Your task to perform on an android device: uninstall "YouTube Kids" Image 0: 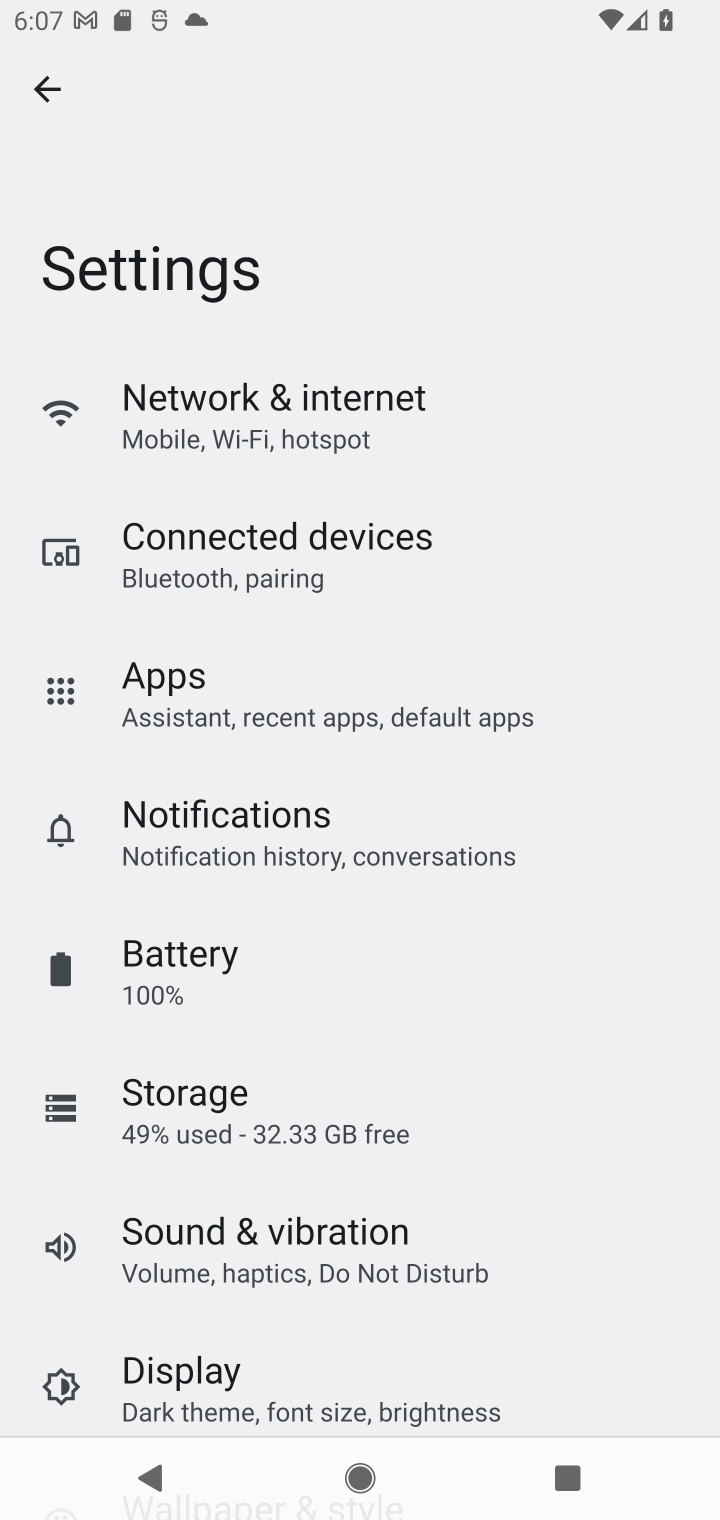
Step 0: press home button
Your task to perform on an android device: uninstall "YouTube Kids" Image 1: 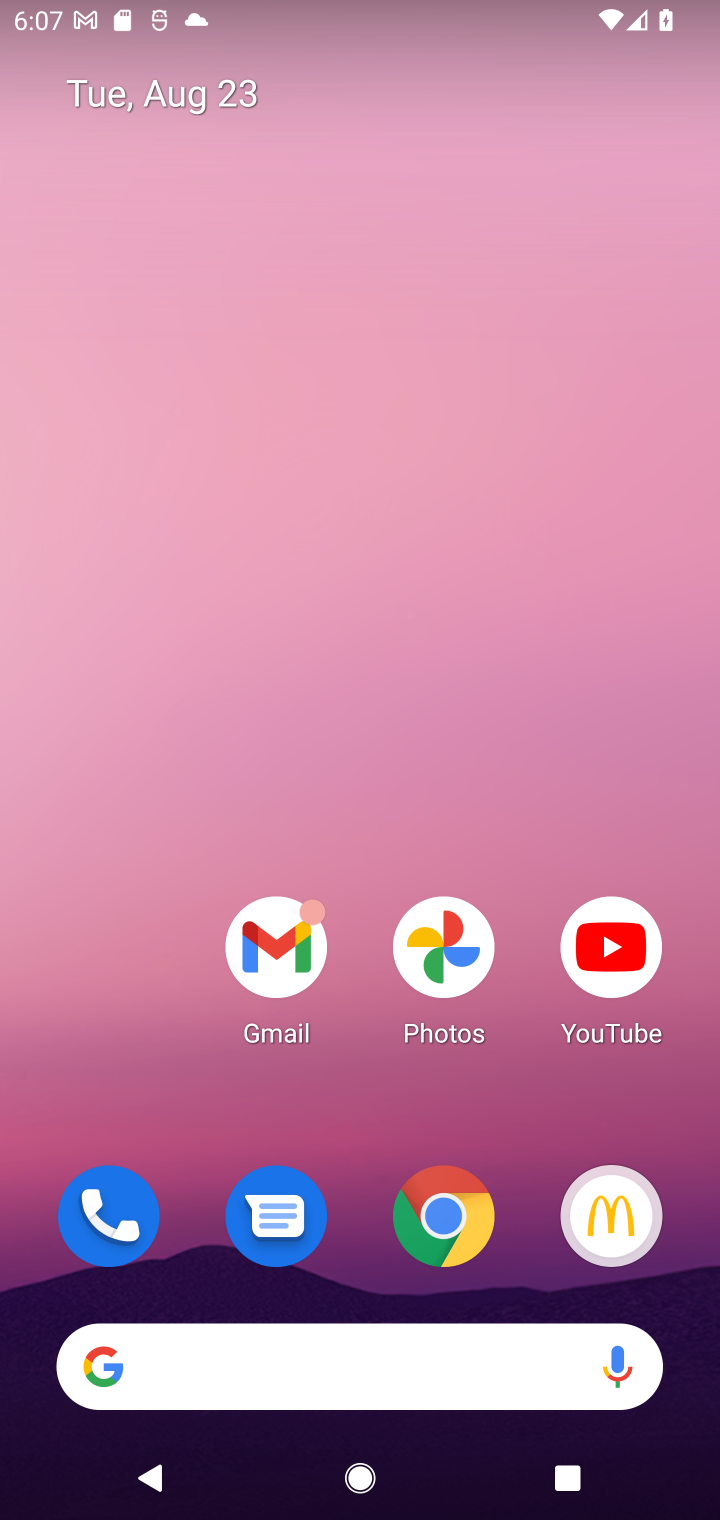
Step 1: drag from (253, 1306) to (326, 197)
Your task to perform on an android device: uninstall "YouTube Kids" Image 2: 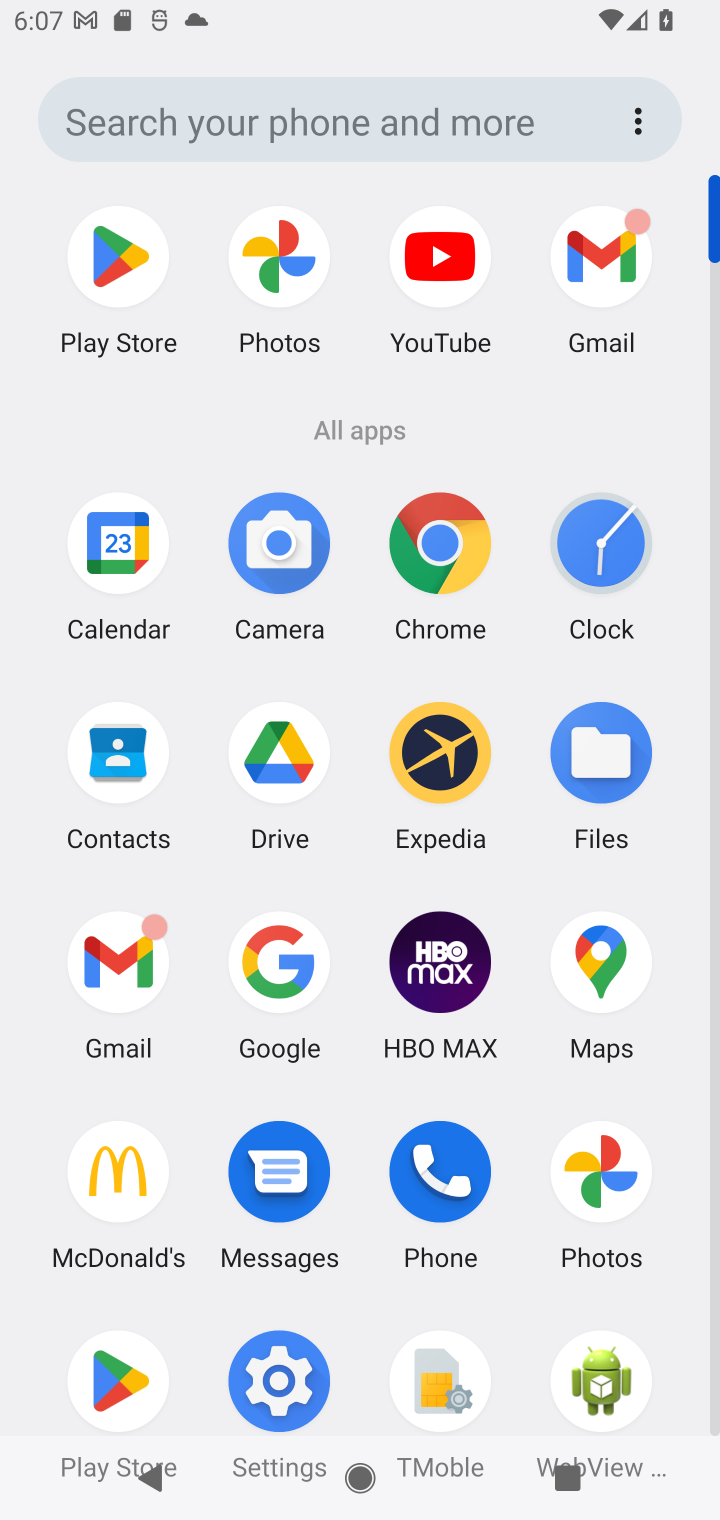
Step 2: click (99, 1386)
Your task to perform on an android device: uninstall "YouTube Kids" Image 3: 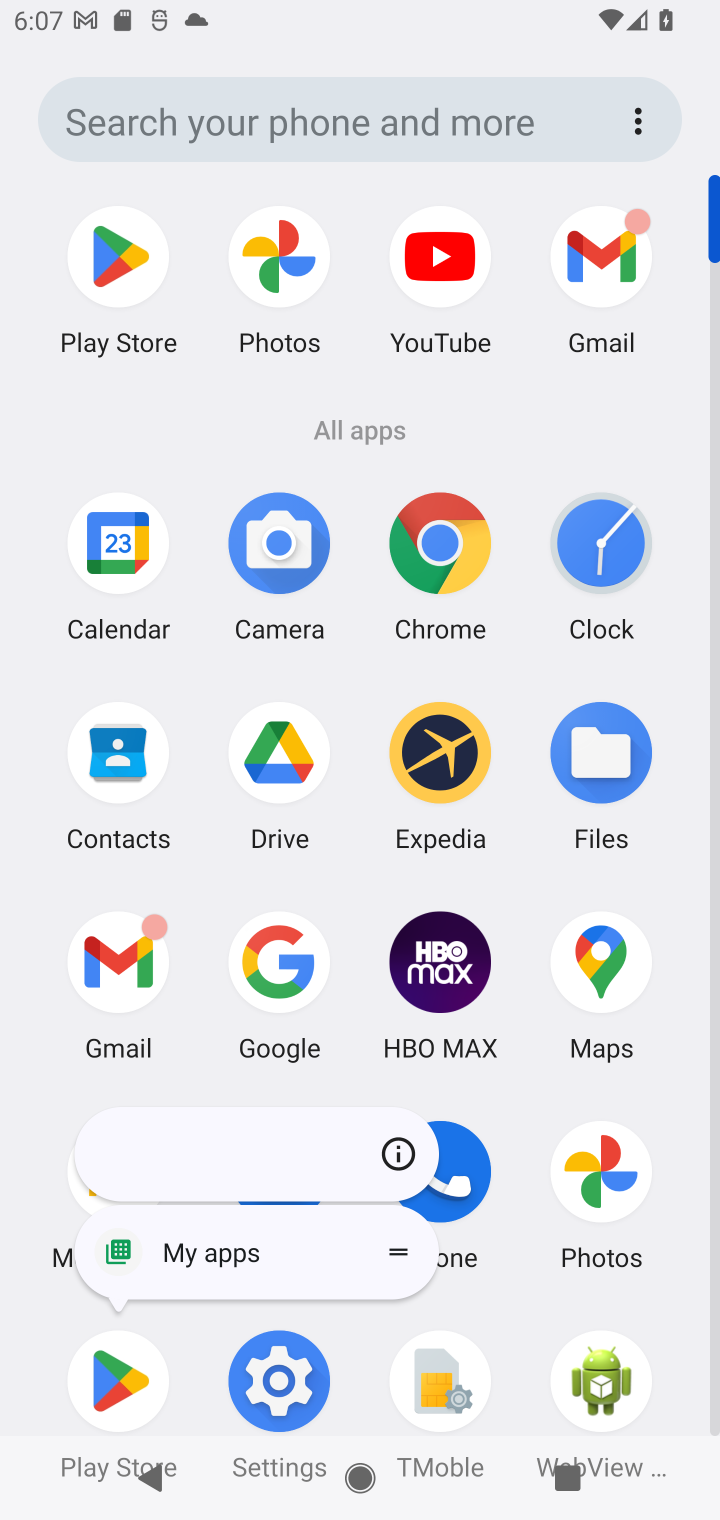
Step 3: click (121, 1400)
Your task to perform on an android device: uninstall "YouTube Kids" Image 4: 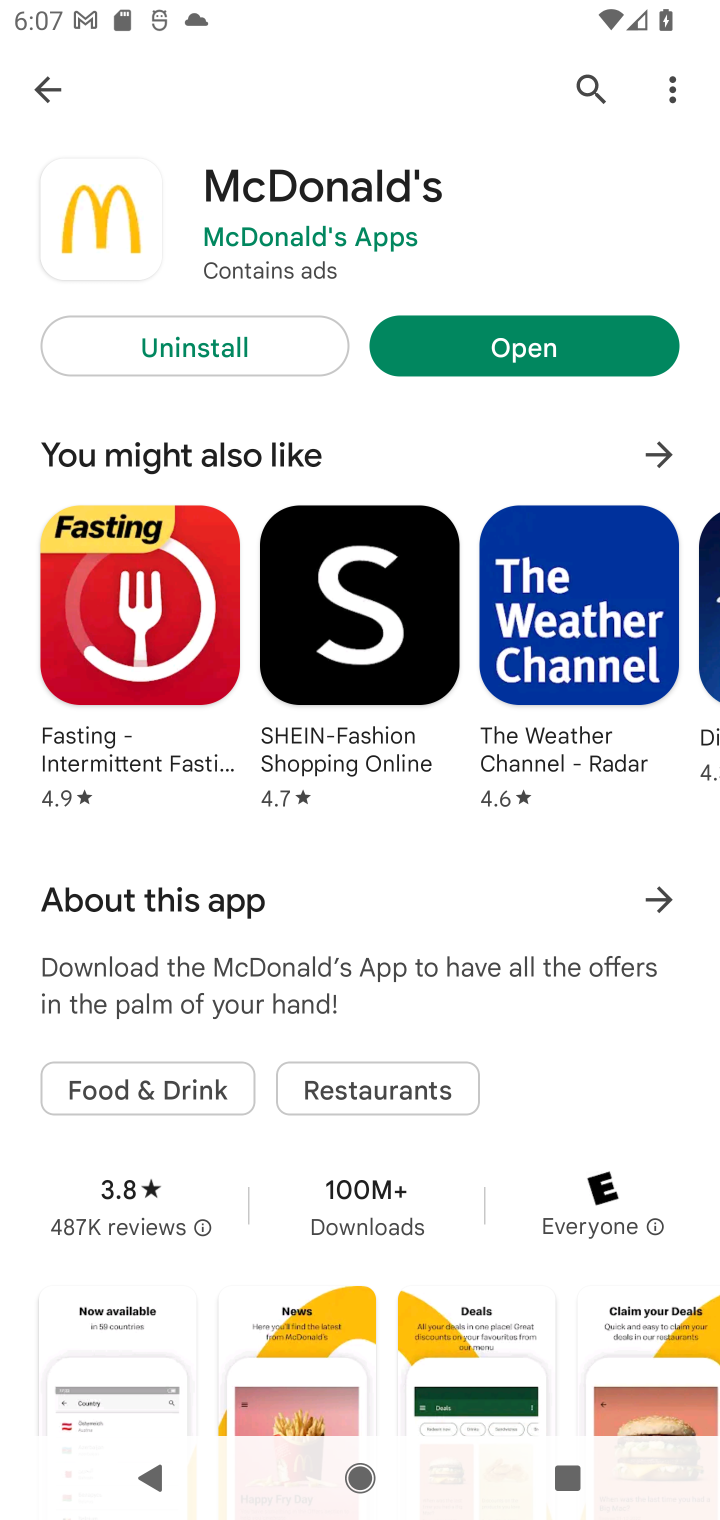
Step 4: click (587, 81)
Your task to perform on an android device: uninstall "YouTube Kids" Image 5: 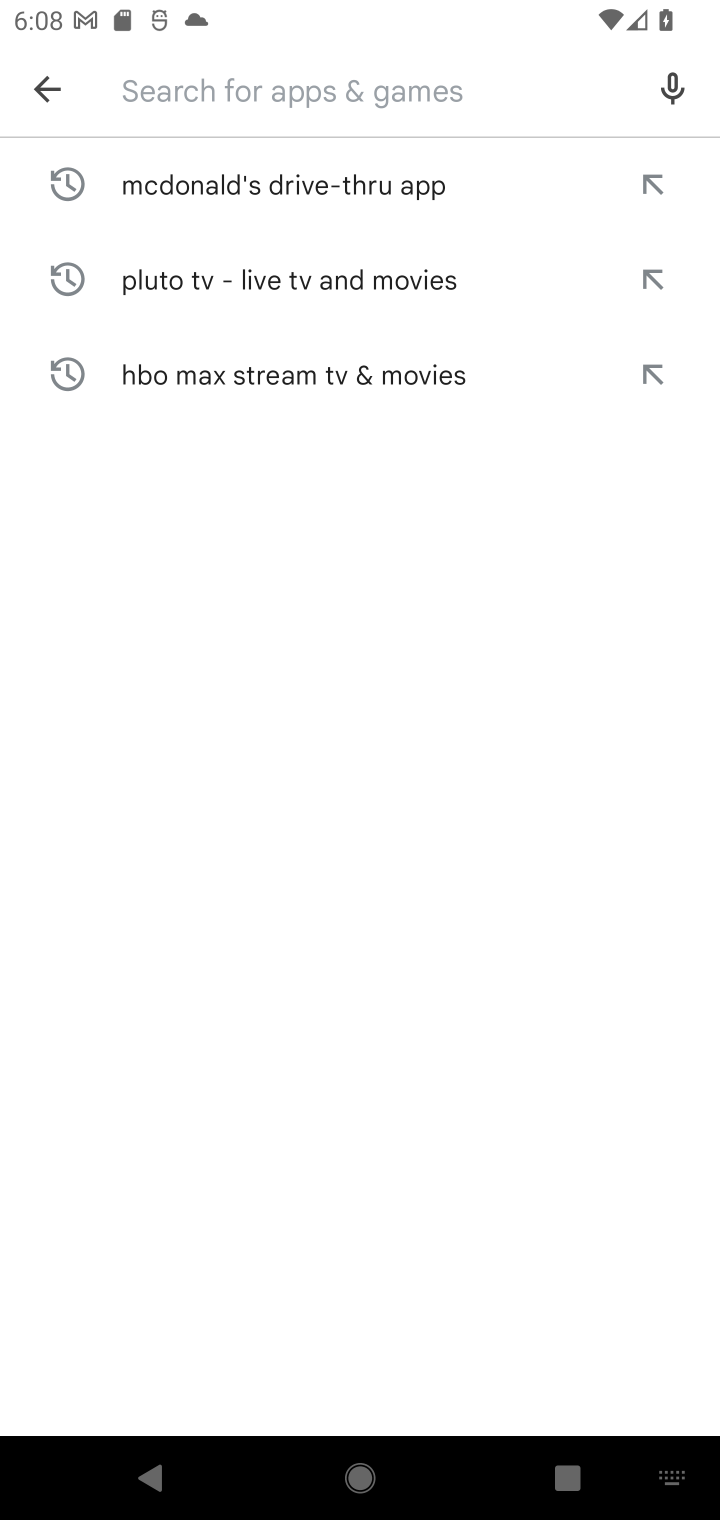
Step 5: type "YouTube Kids"
Your task to perform on an android device: uninstall "YouTube Kids" Image 6: 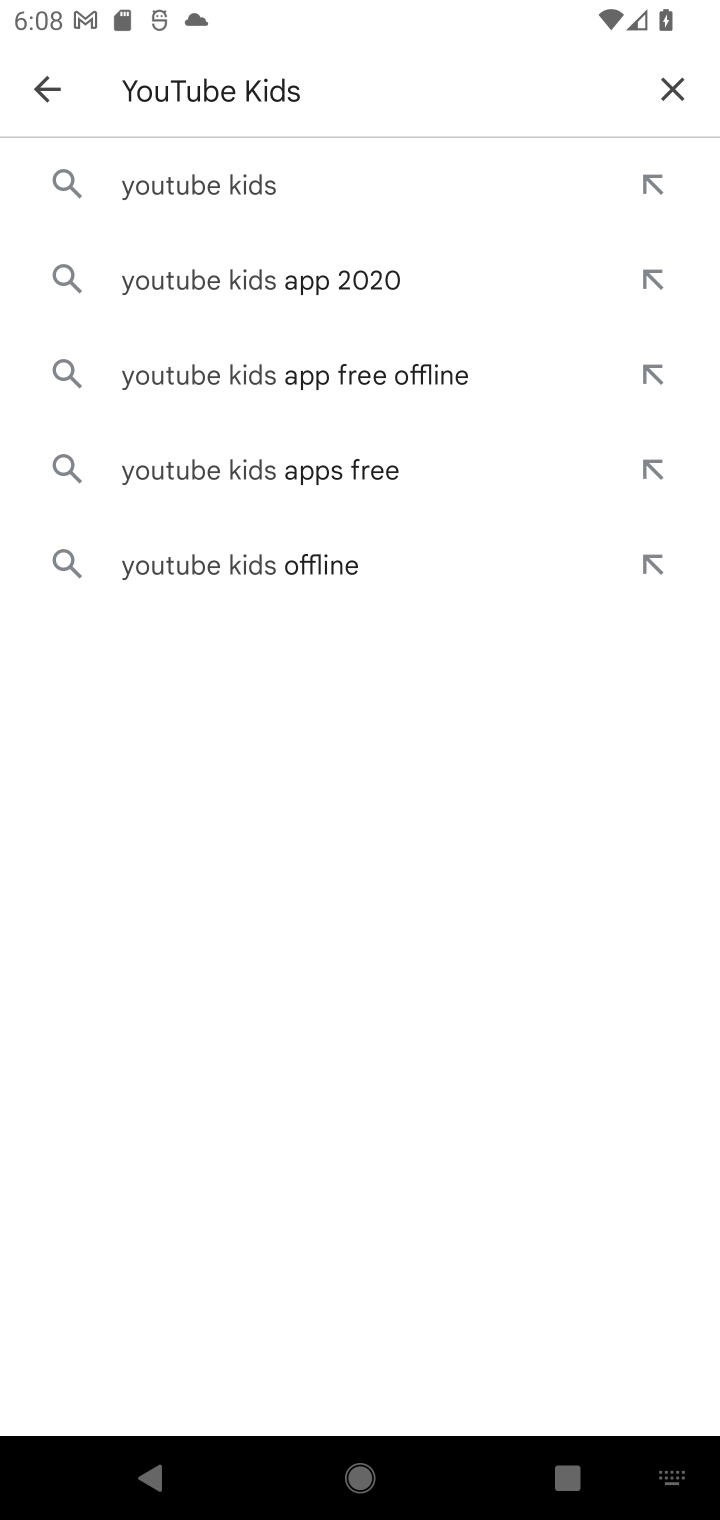
Step 6: click (193, 167)
Your task to perform on an android device: uninstall "YouTube Kids" Image 7: 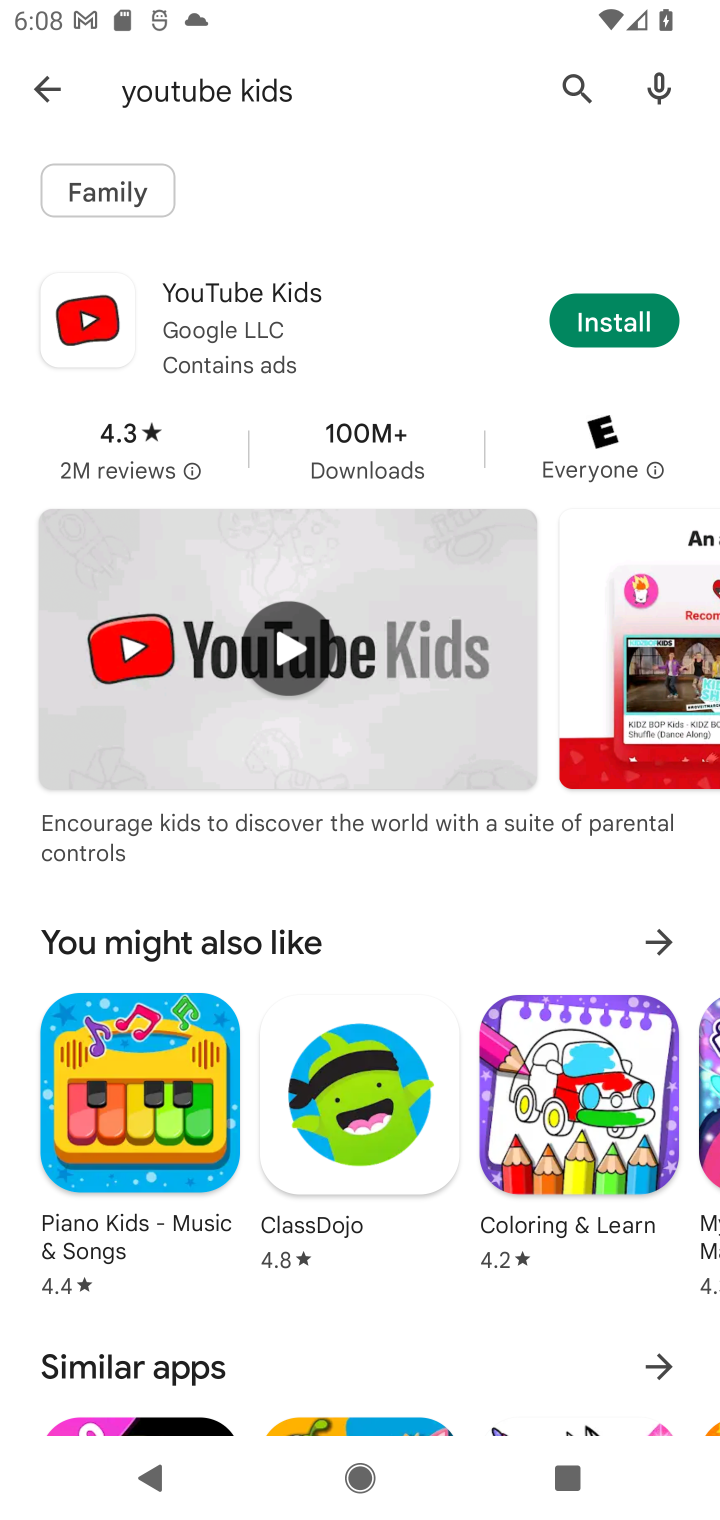
Step 7: task complete